Your task to perform on an android device: Go to Yahoo.com Image 0: 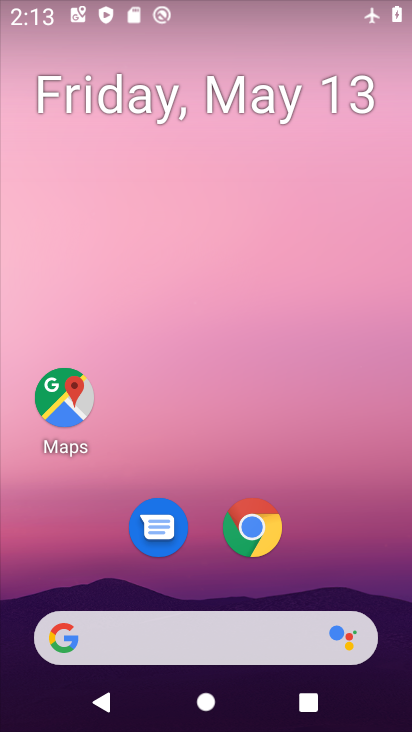
Step 0: click (240, 517)
Your task to perform on an android device: Go to Yahoo.com Image 1: 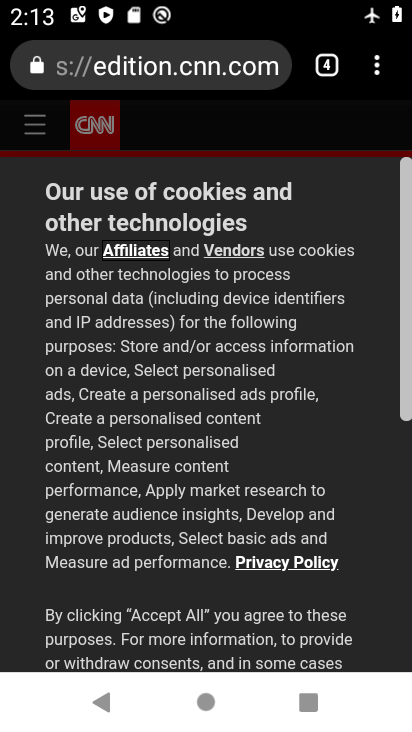
Step 1: click (332, 69)
Your task to perform on an android device: Go to Yahoo.com Image 2: 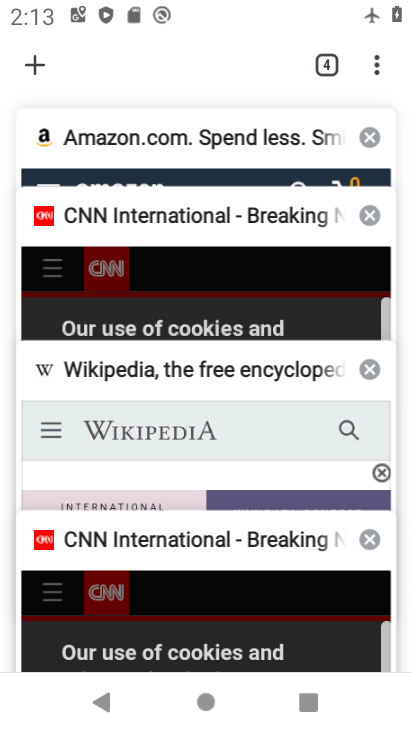
Step 2: click (40, 61)
Your task to perform on an android device: Go to Yahoo.com Image 3: 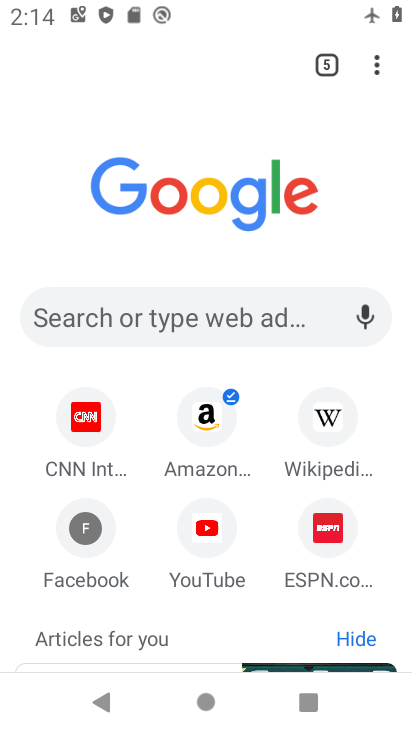
Step 3: click (132, 299)
Your task to perform on an android device: Go to Yahoo.com Image 4: 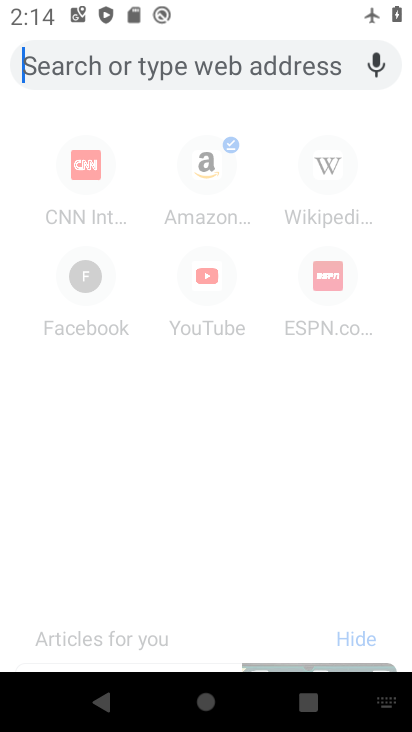
Step 4: type "yahhoo.com"
Your task to perform on an android device: Go to Yahoo.com Image 5: 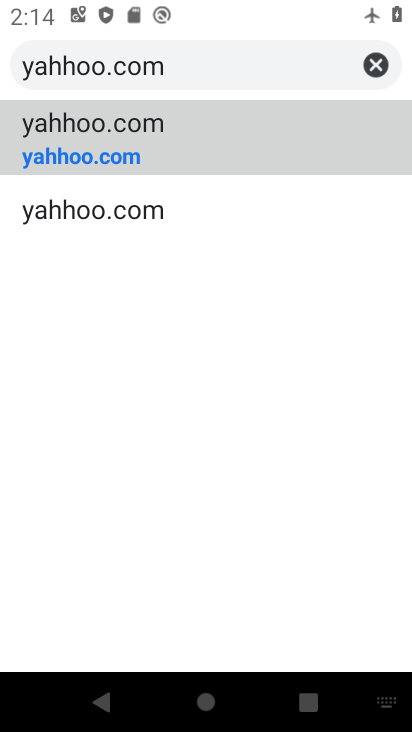
Step 5: click (81, 146)
Your task to perform on an android device: Go to Yahoo.com Image 6: 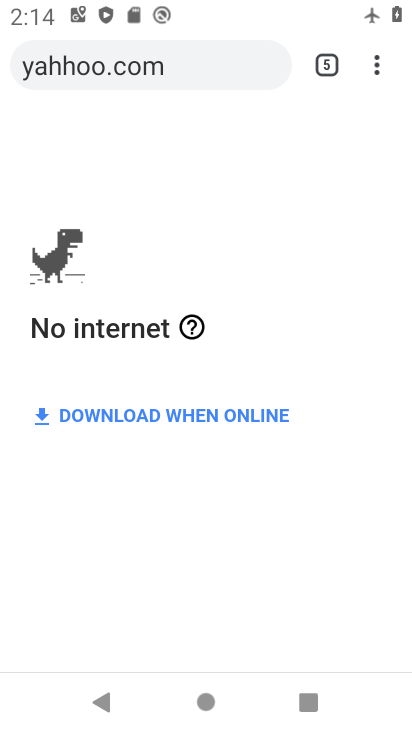
Step 6: drag from (209, 8) to (66, 500)
Your task to perform on an android device: Go to Yahoo.com Image 7: 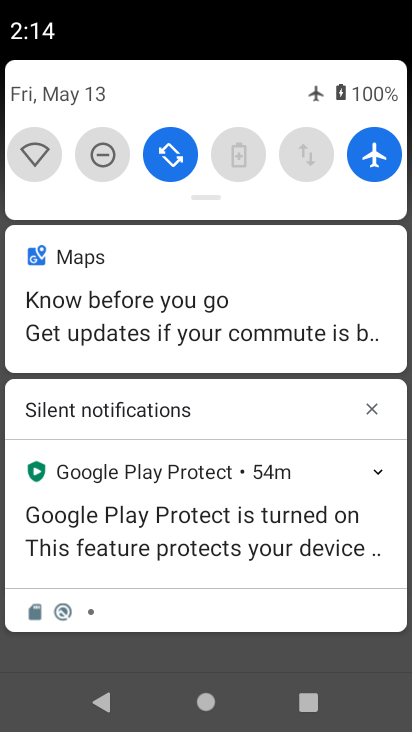
Step 7: click (364, 169)
Your task to perform on an android device: Go to Yahoo.com Image 8: 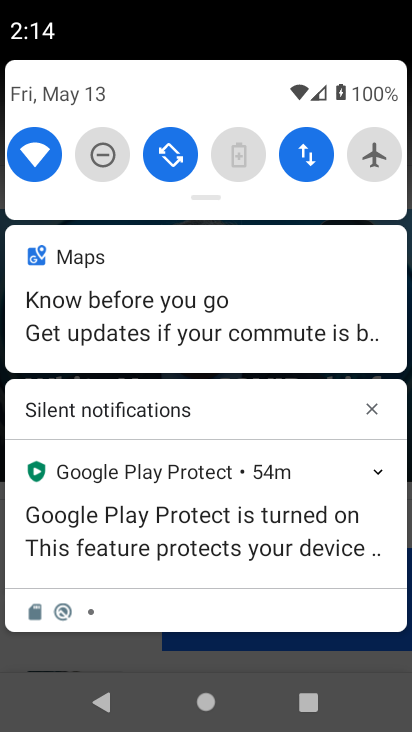
Step 8: task complete